Your task to perform on an android device: Open Amazon Image 0: 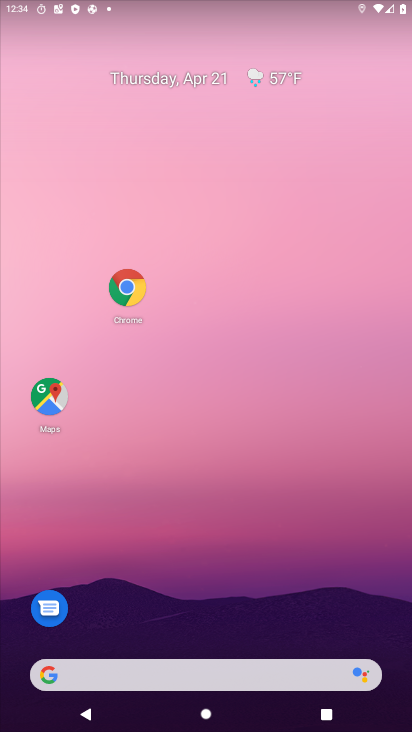
Step 0: click (124, 281)
Your task to perform on an android device: Open Amazon Image 1: 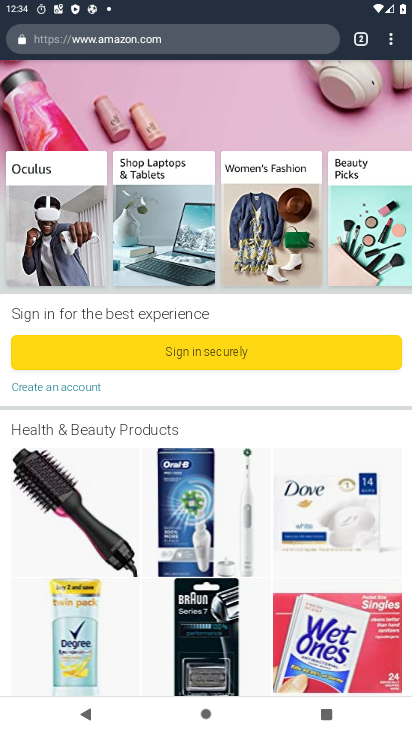
Step 1: click (195, 453)
Your task to perform on an android device: Open Amazon Image 2: 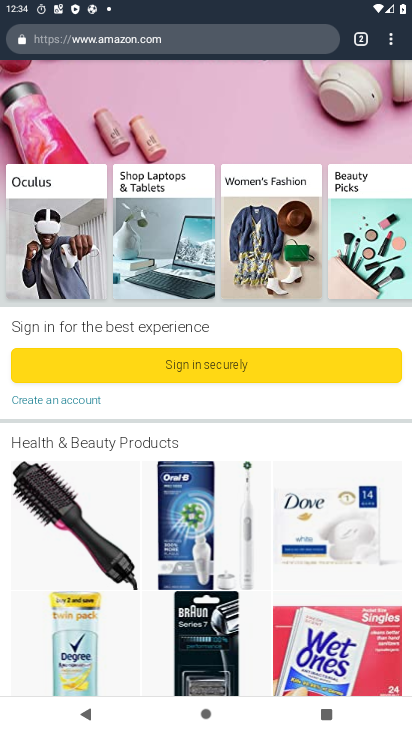
Step 2: task complete